Your task to perform on an android device: Go to sound settings Image 0: 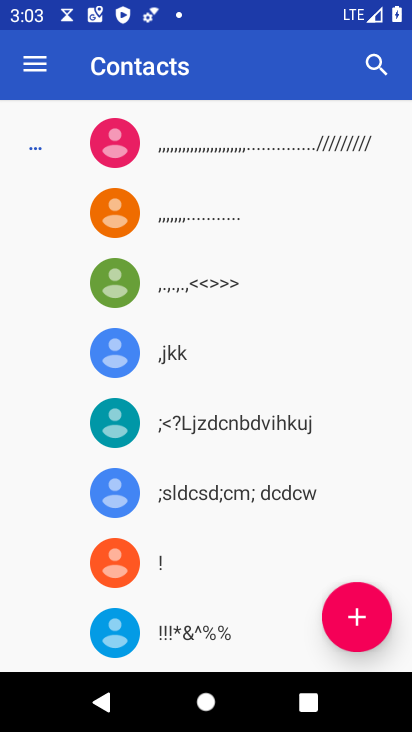
Step 0: press home button
Your task to perform on an android device: Go to sound settings Image 1: 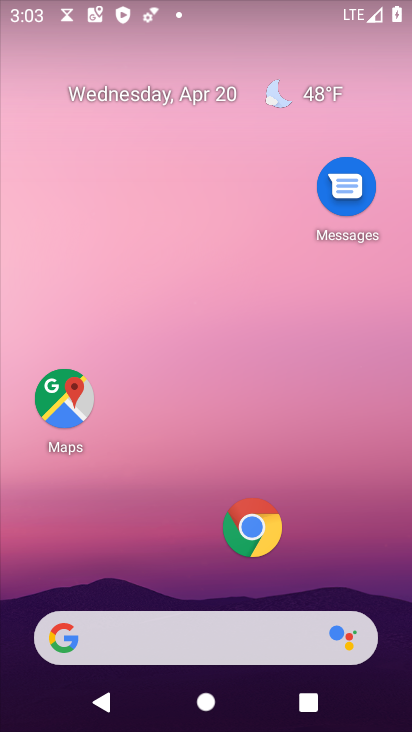
Step 1: drag from (160, 622) to (315, 31)
Your task to perform on an android device: Go to sound settings Image 2: 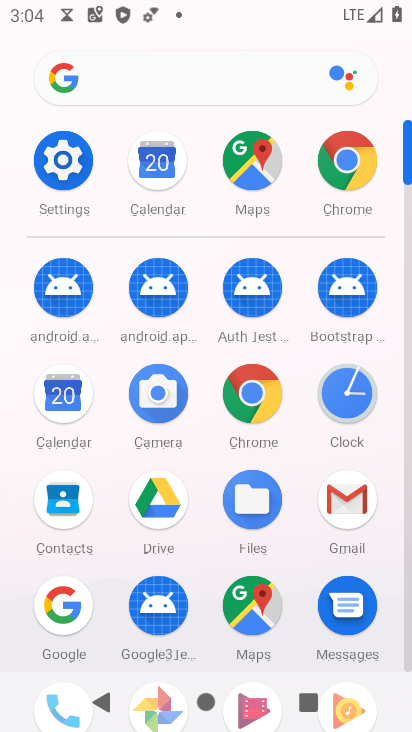
Step 2: click (54, 167)
Your task to perform on an android device: Go to sound settings Image 3: 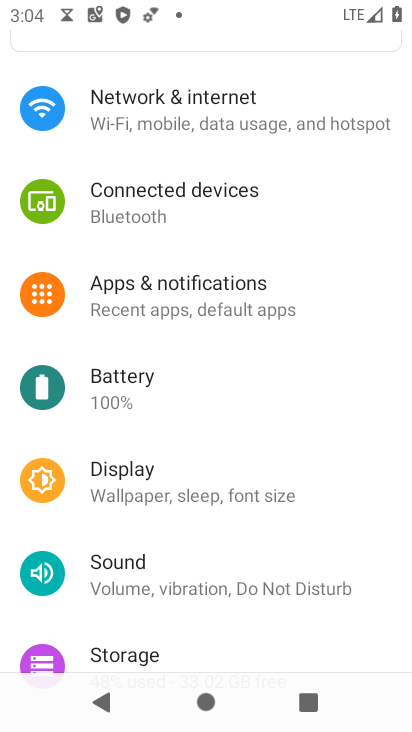
Step 3: click (157, 570)
Your task to perform on an android device: Go to sound settings Image 4: 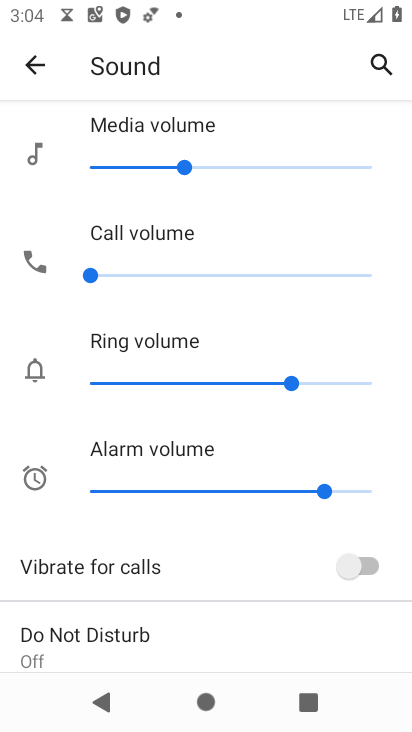
Step 4: task complete